Your task to perform on an android device: What's the weather like in Delhi? Image 0: 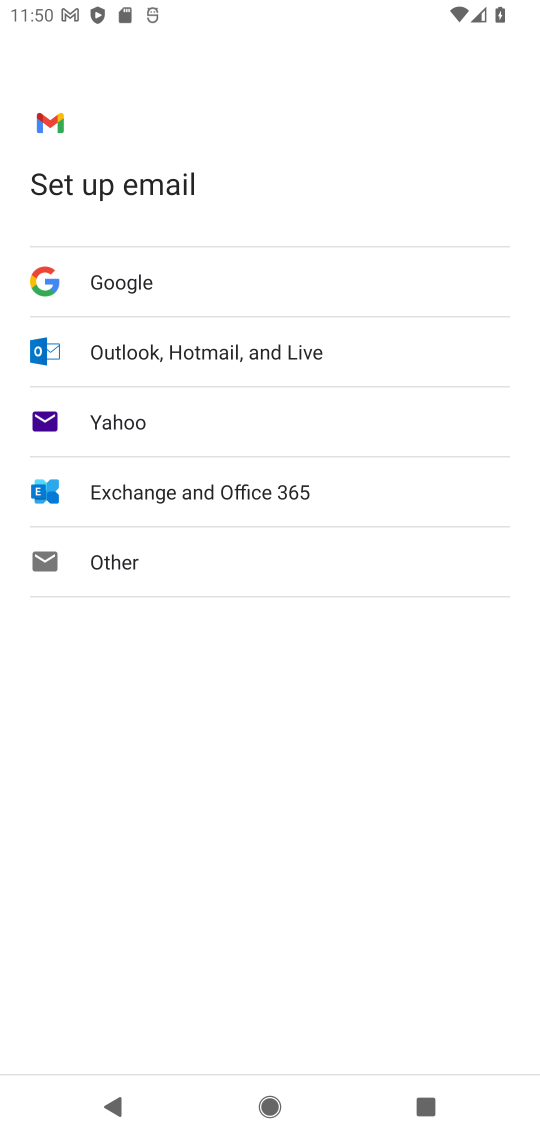
Step 0: drag from (281, 361) to (287, 175)
Your task to perform on an android device: What's the weather like in Delhi? Image 1: 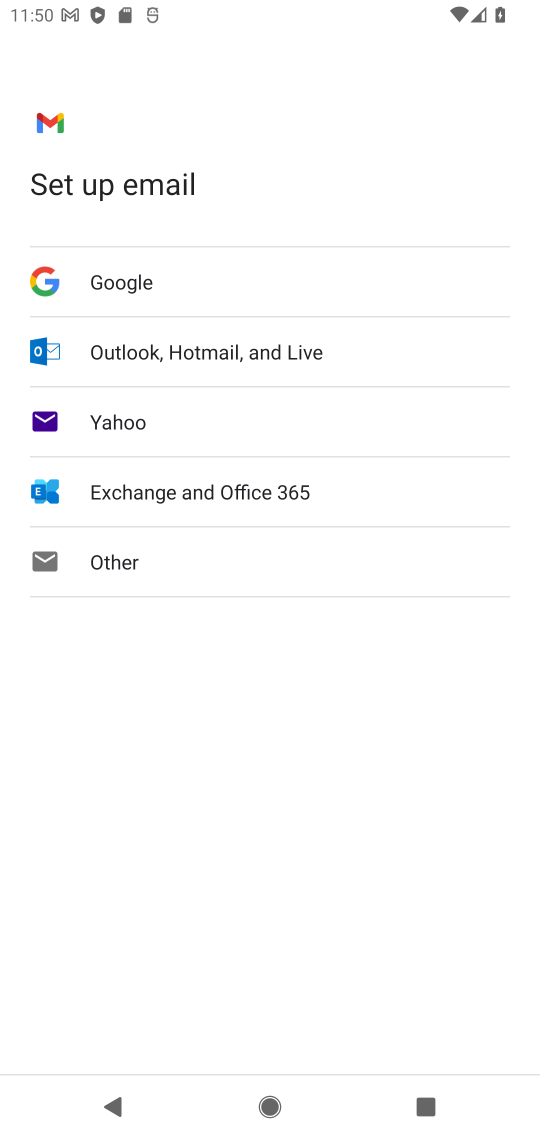
Step 1: press home button
Your task to perform on an android device: What's the weather like in Delhi? Image 2: 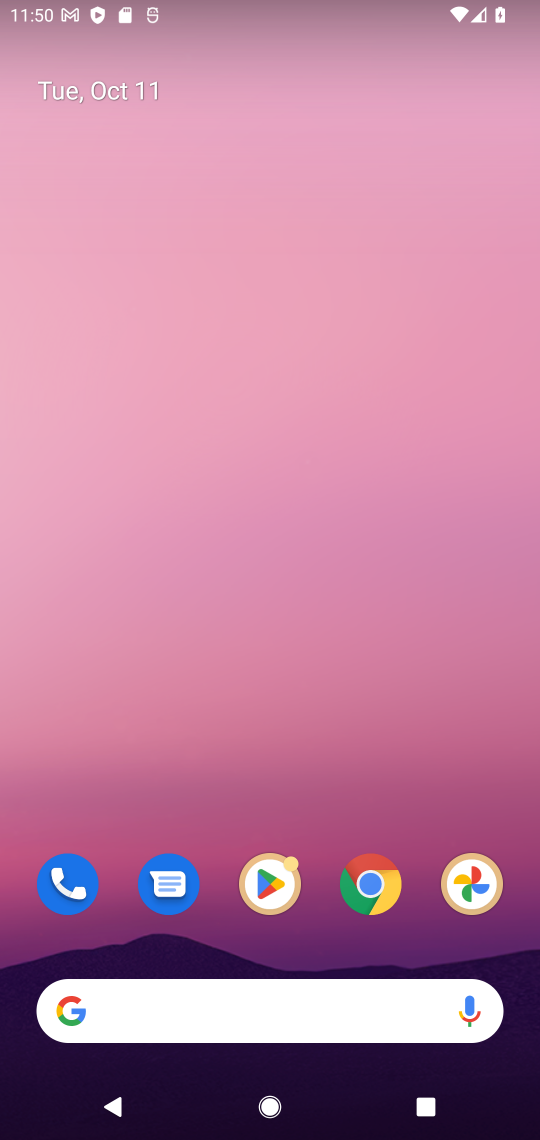
Step 2: drag from (272, 973) to (287, 181)
Your task to perform on an android device: What's the weather like in Delhi? Image 3: 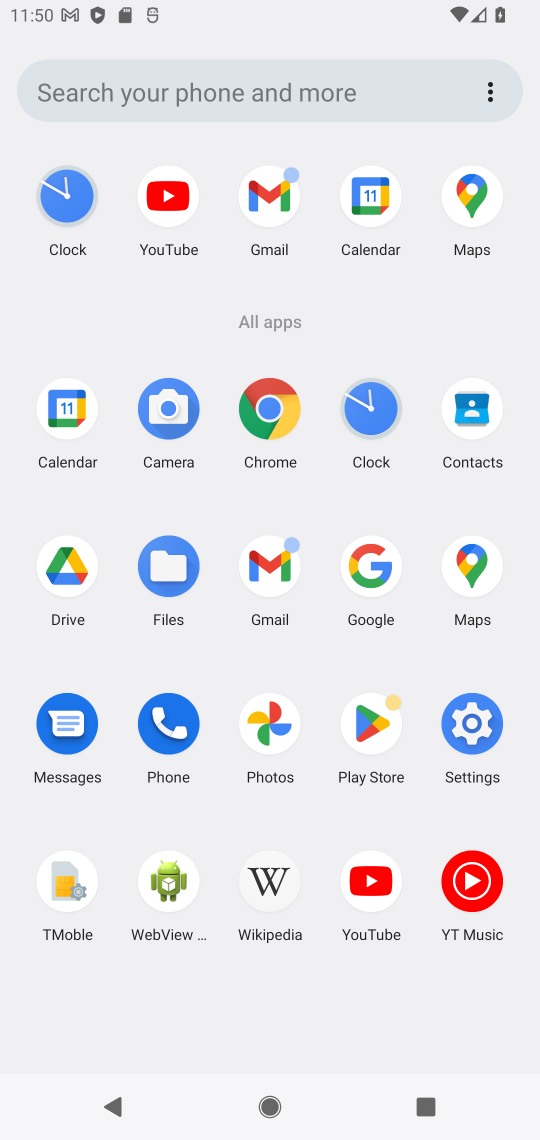
Step 3: click (381, 569)
Your task to perform on an android device: What's the weather like in Delhi? Image 4: 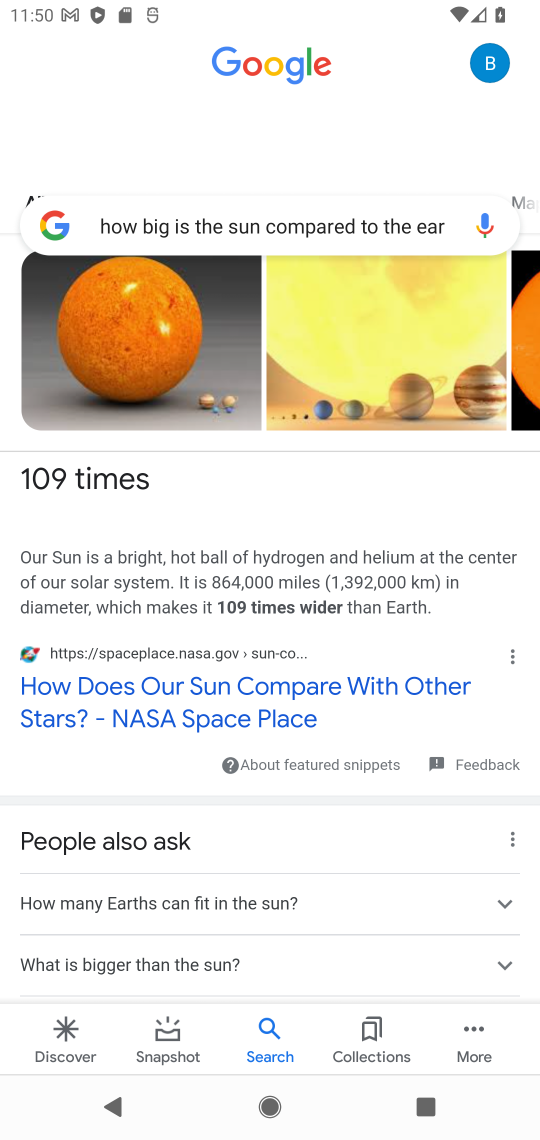
Step 4: click (368, 222)
Your task to perform on an android device: What's the weather like in Delhi? Image 5: 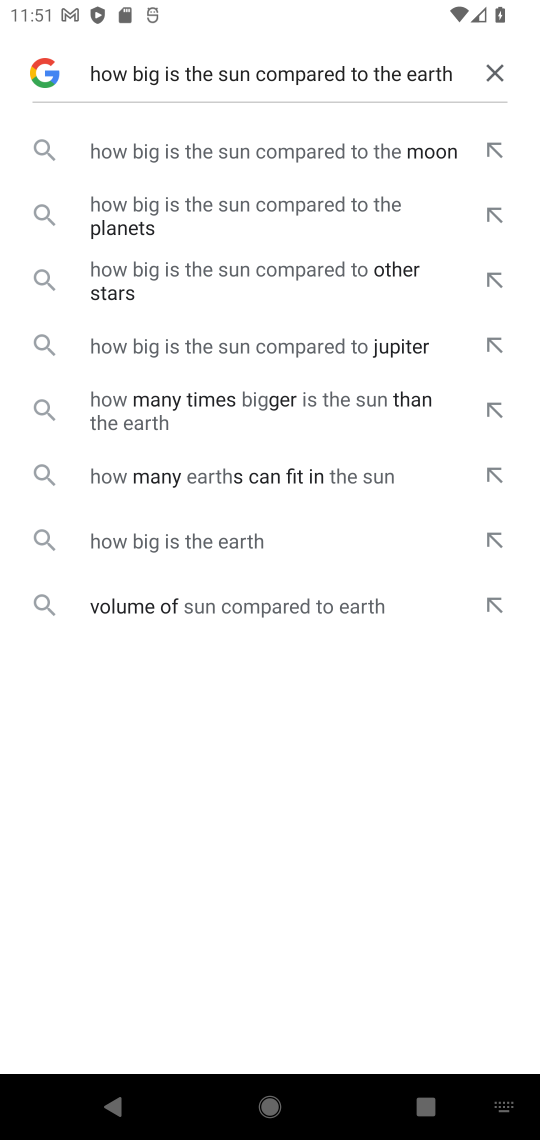
Step 5: click (498, 73)
Your task to perform on an android device: What's the weather like in Delhi? Image 6: 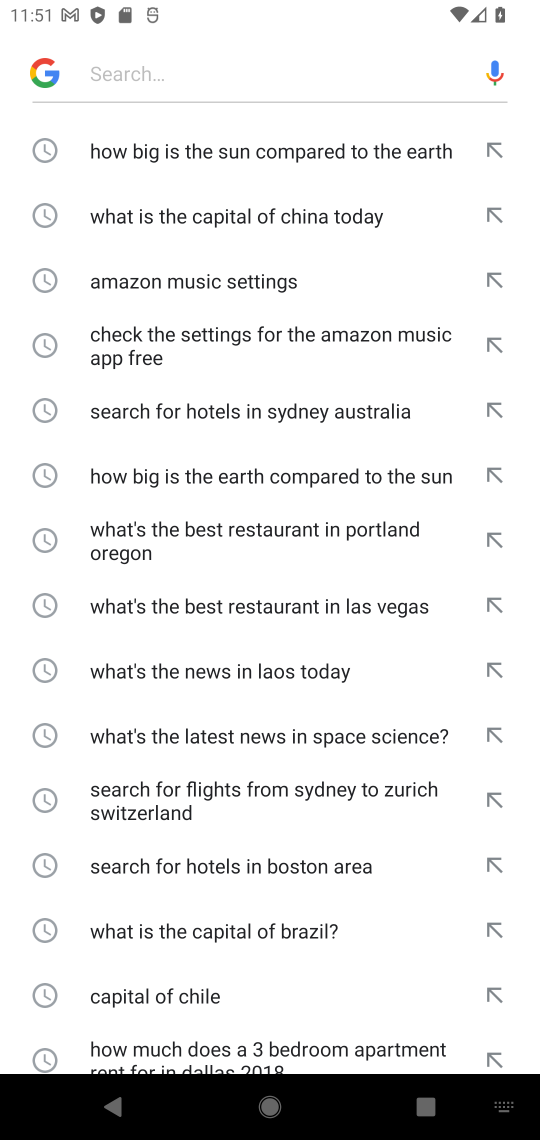
Step 6: type "What's the weather like in Delhi?"
Your task to perform on an android device: What's the weather like in Delhi? Image 7: 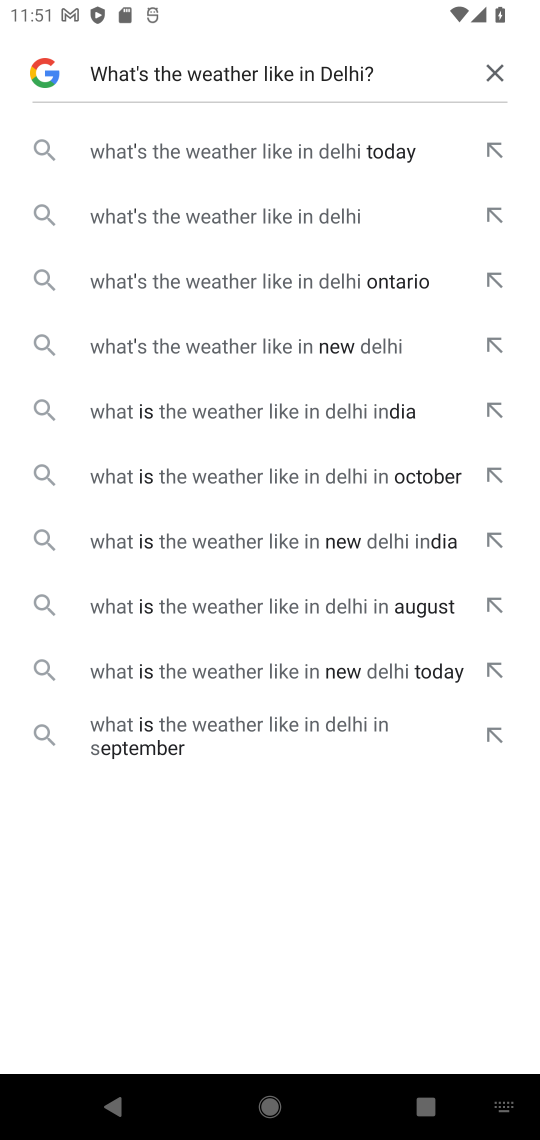
Step 7: click (317, 155)
Your task to perform on an android device: What's the weather like in Delhi? Image 8: 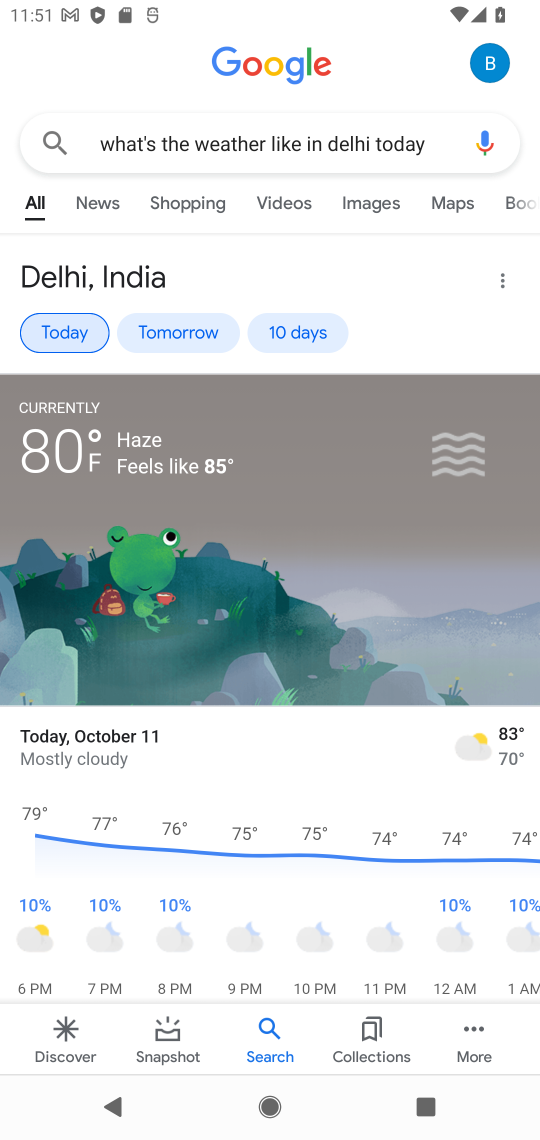
Step 8: task complete